Your task to perform on an android device: Go to Yahoo.com Image 0: 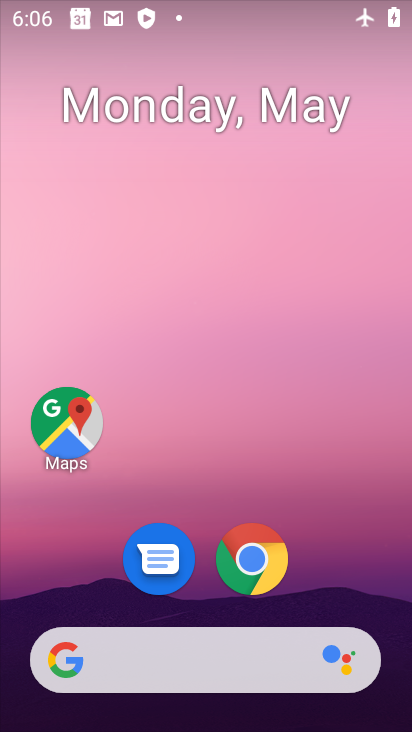
Step 0: click (255, 558)
Your task to perform on an android device: Go to Yahoo.com Image 1: 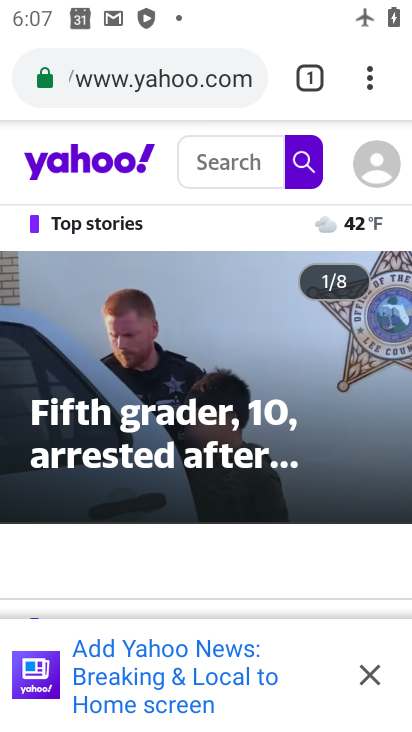
Step 1: task complete